Your task to perform on an android device: turn on the 12-hour format for clock Image 0: 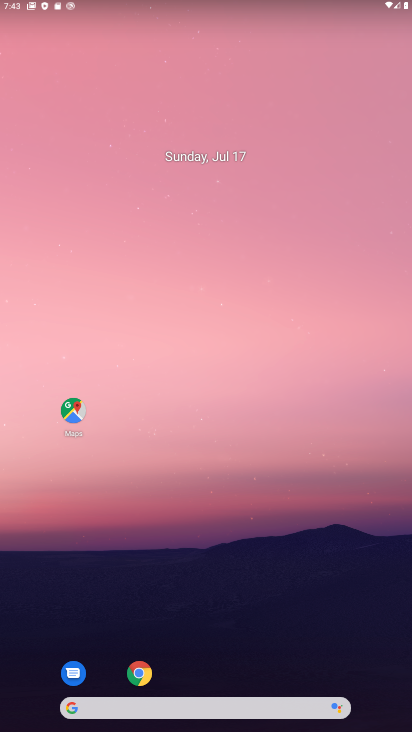
Step 0: drag from (345, 627) to (336, 91)
Your task to perform on an android device: turn on the 12-hour format for clock Image 1: 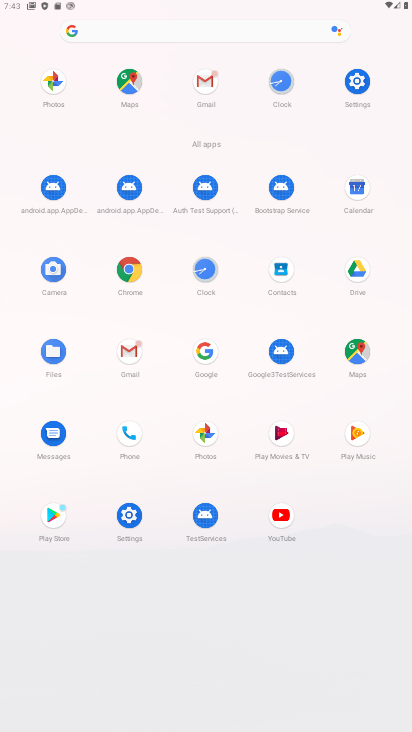
Step 1: click (277, 91)
Your task to perform on an android device: turn on the 12-hour format for clock Image 2: 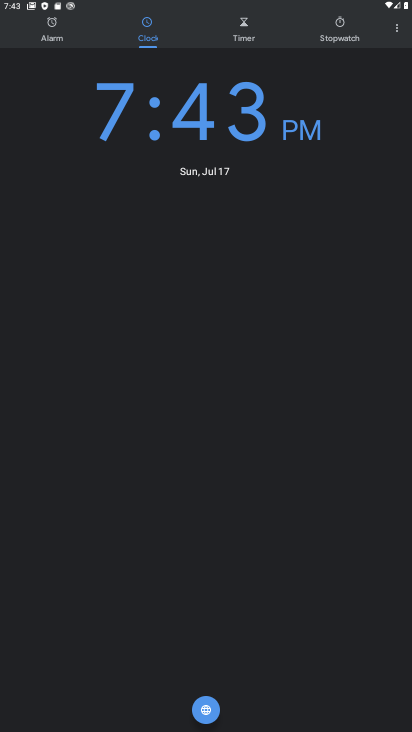
Step 2: click (393, 34)
Your task to perform on an android device: turn on the 12-hour format for clock Image 3: 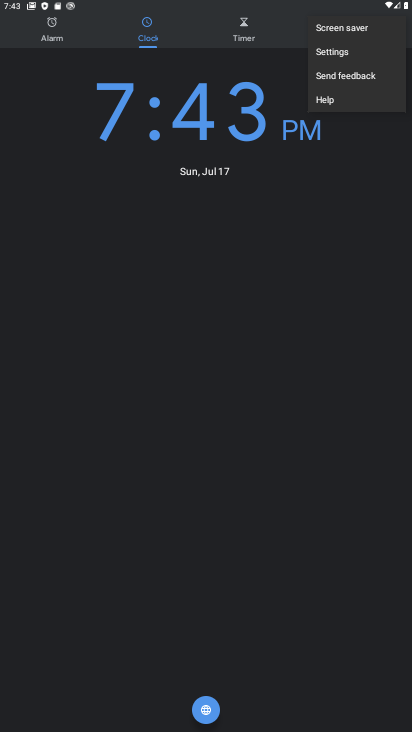
Step 3: click (349, 55)
Your task to perform on an android device: turn on the 12-hour format for clock Image 4: 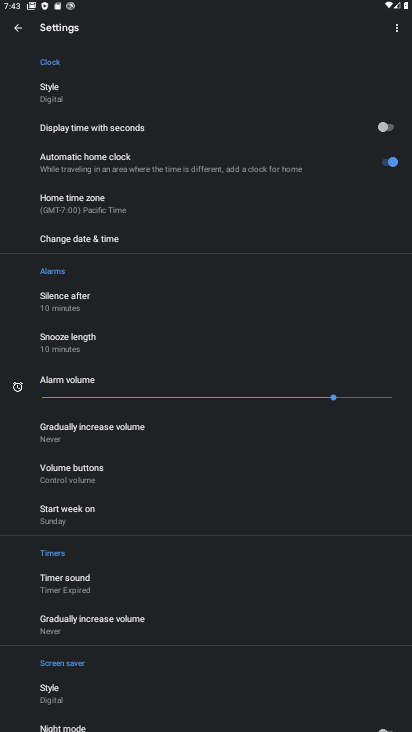
Step 4: click (176, 237)
Your task to perform on an android device: turn on the 12-hour format for clock Image 5: 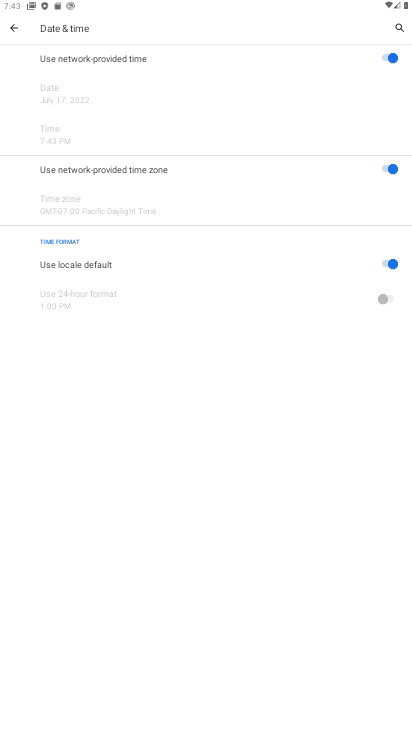
Step 5: task complete